Your task to perform on an android device: add a label to a message in the gmail app Image 0: 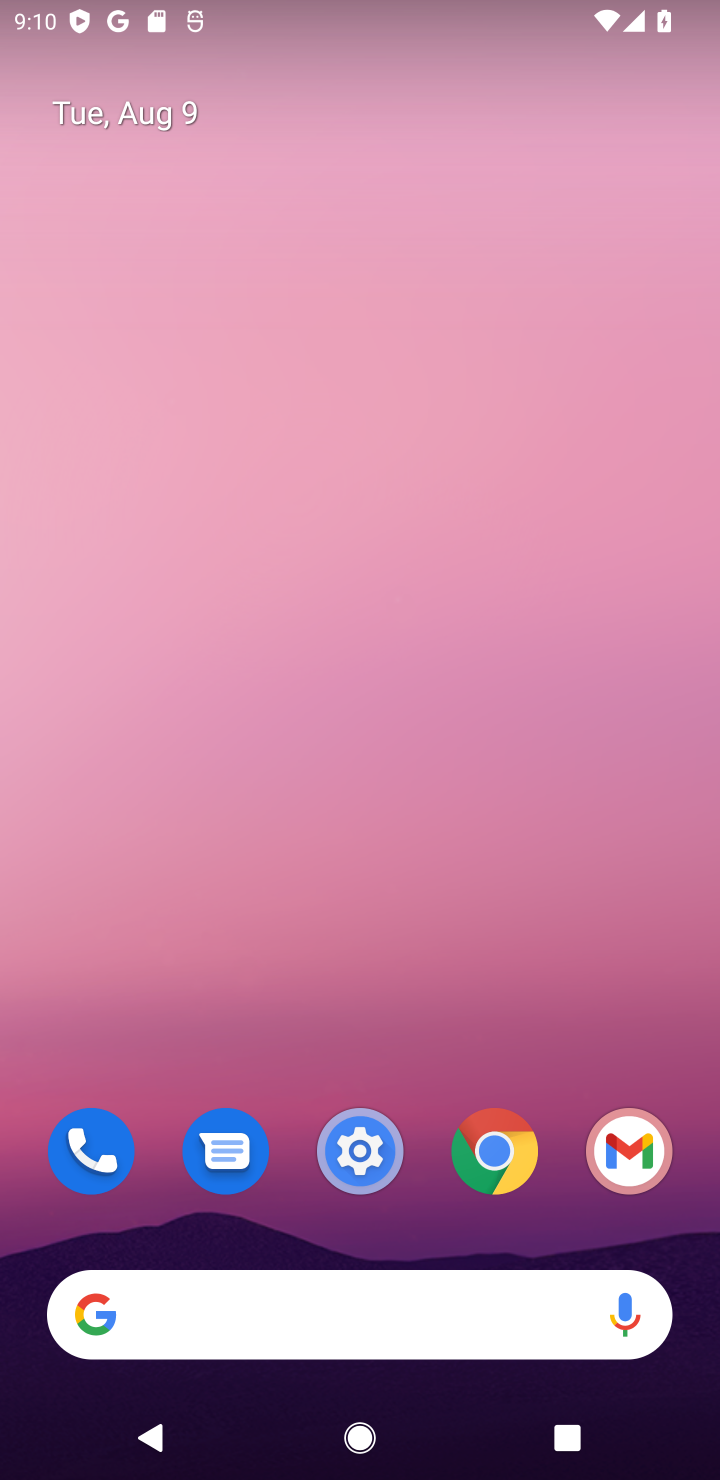
Step 0: click (627, 1151)
Your task to perform on an android device: add a label to a message in the gmail app Image 1: 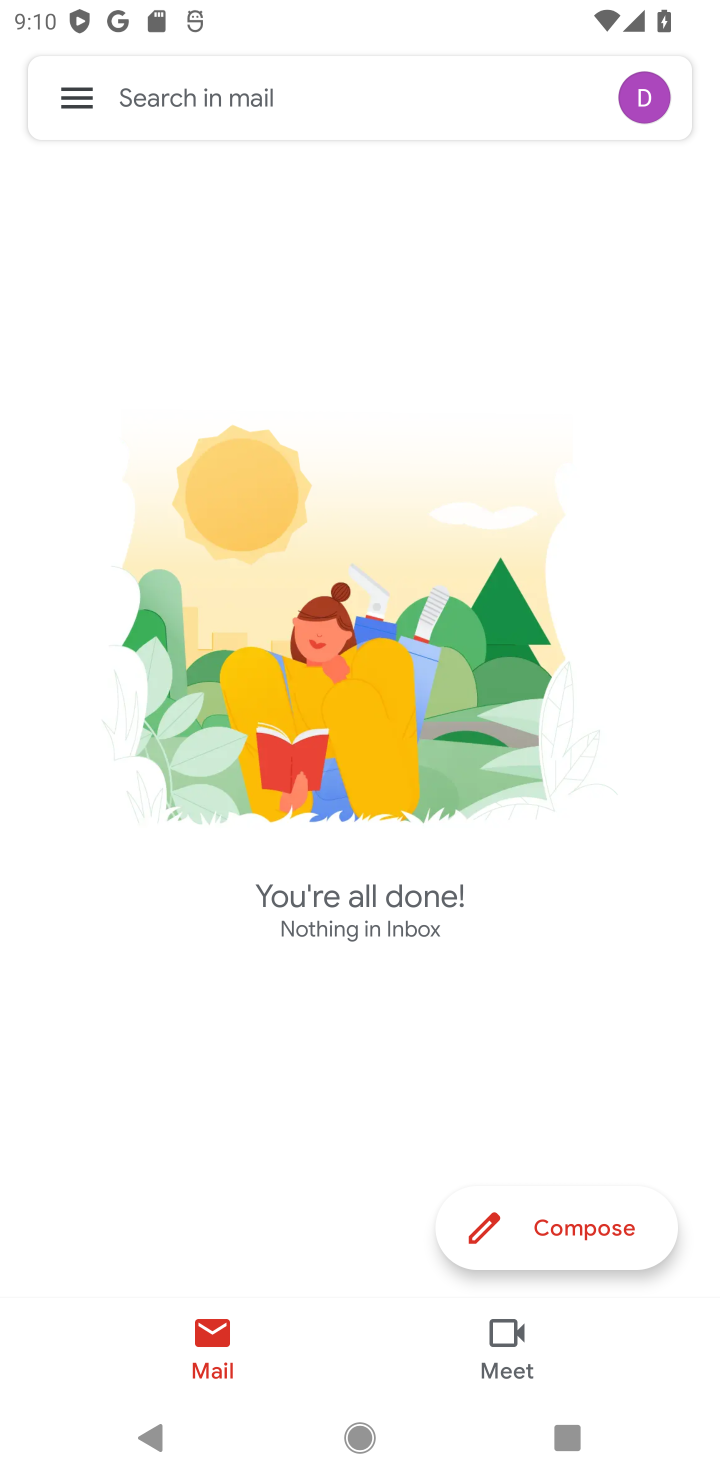
Step 1: task complete